Your task to perform on an android device: Play the last video I watched on Youtube Image 0: 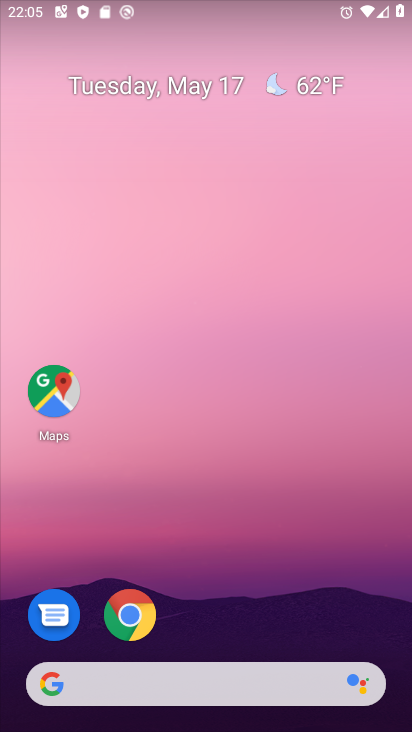
Step 0: drag from (206, 622) to (202, 301)
Your task to perform on an android device: Play the last video I watched on Youtube Image 1: 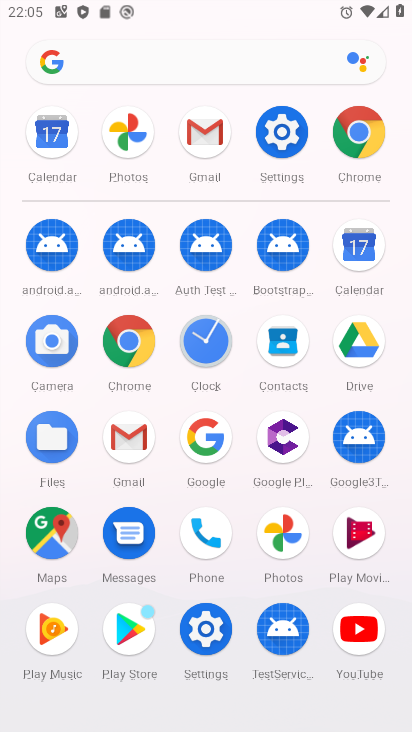
Step 1: click (349, 626)
Your task to perform on an android device: Play the last video I watched on Youtube Image 2: 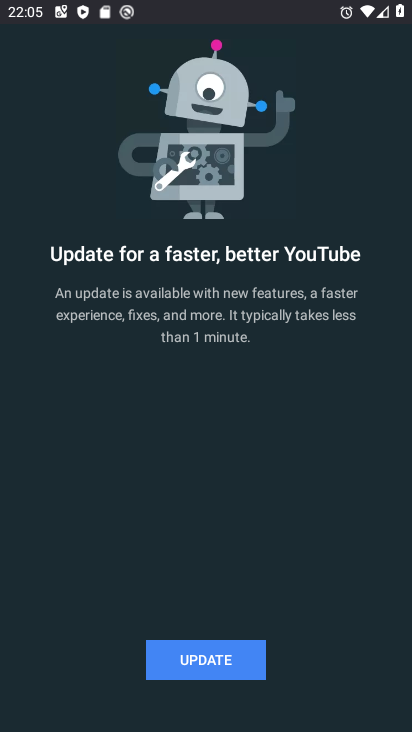
Step 2: click (196, 664)
Your task to perform on an android device: Play the last video I watched on Youtube Image 3: 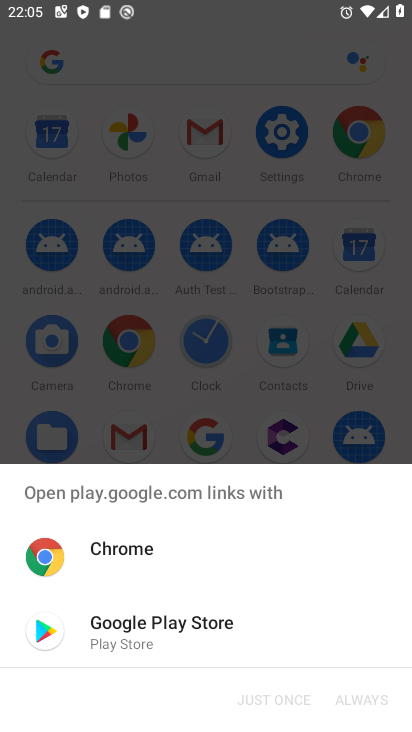
Step 3: click (175, 611)
Your task to perform on an android device: Play the last video I watched on Youtube Image 4: 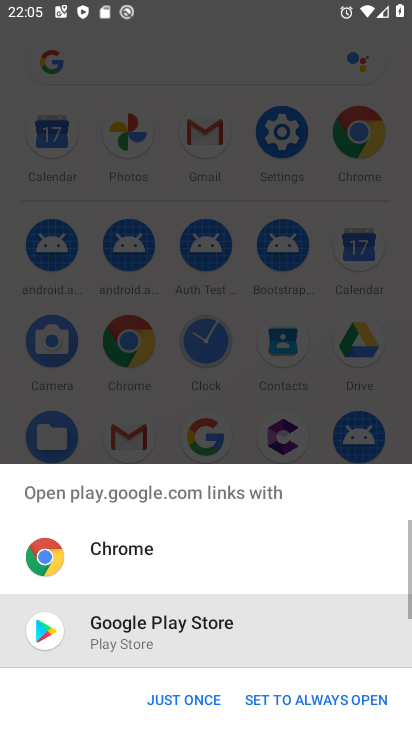
Step 4: click (175, 696)
Your task to perform on an android device: Play the last video I watched on Youtube Image 5: 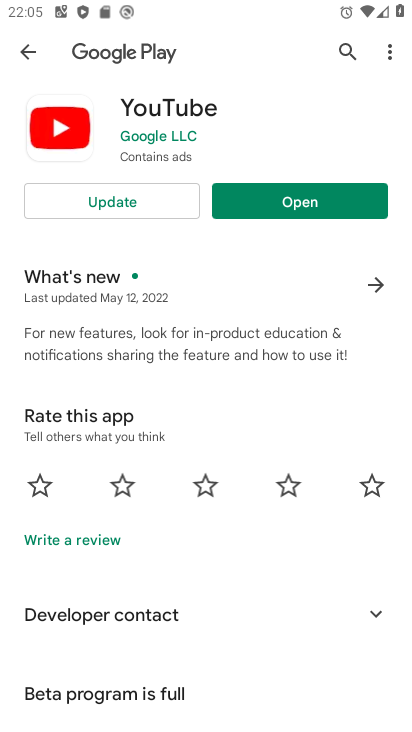
Step 5: click (88, 201)
Your task to perform on an android device: Play the last video I watched on Youtube Image 6: 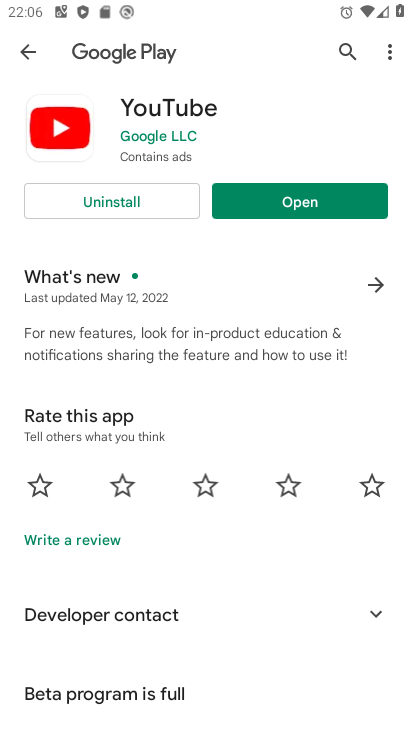
Step 6: click (266, 213)
Your task to perform on an android device: Play the last video I watched on Youtube Image 7: 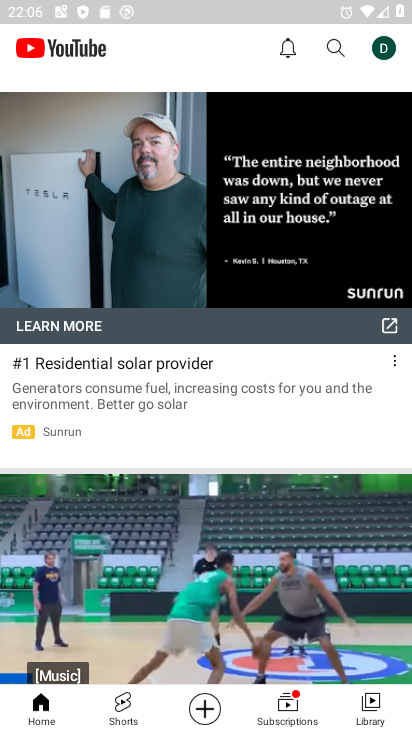
Step 7: click (388, 702)
Your task to perform on an android device: Play the last video I watched on Youtube Image 8: 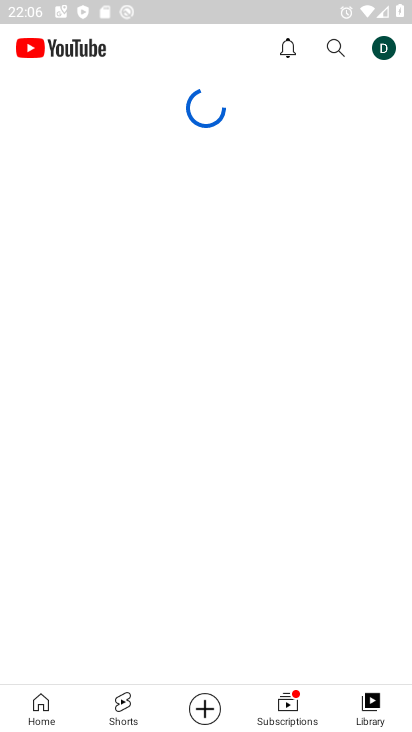
Step 8: click (388, 702)
Your task to perform on an android device: Play the last video I watched on Youtube Image 9: 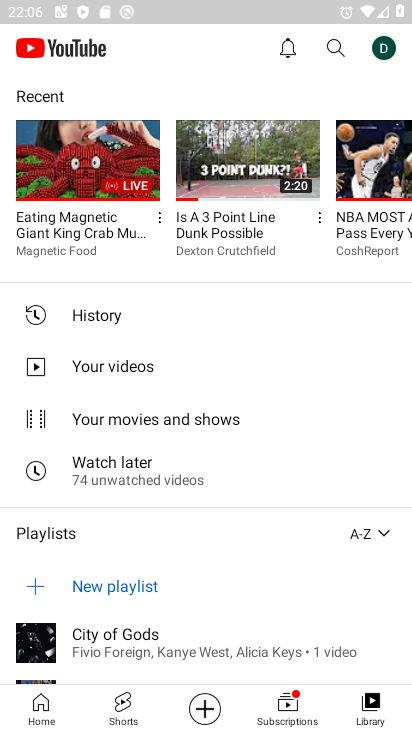
Step 9: click (57, 193)
Your task to perform on an android device: Play the last video I watched on Youtube Image 10: 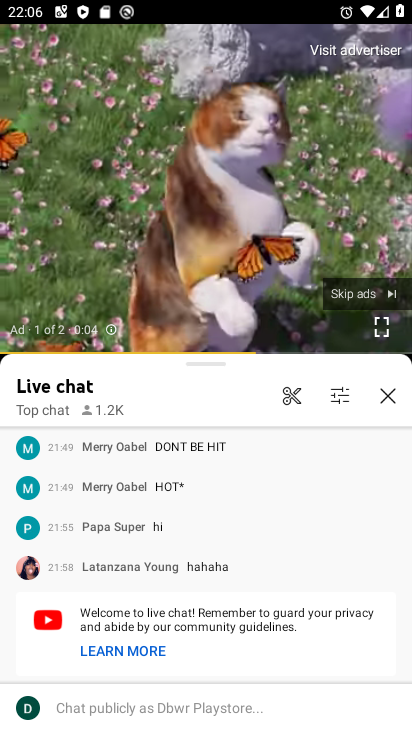
Step 10: task complete